Your task to perform on an android device: Do I have any events tomorrow? Image 0: 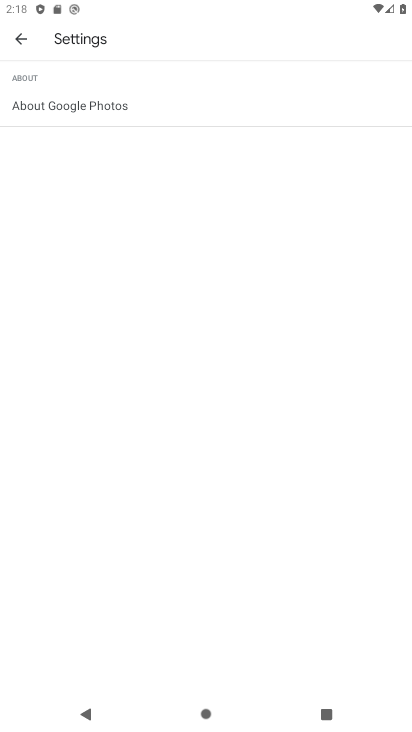
Step 0: press home button
Your task to perform on an android device: Do I have any events tomorrow? Image 1: 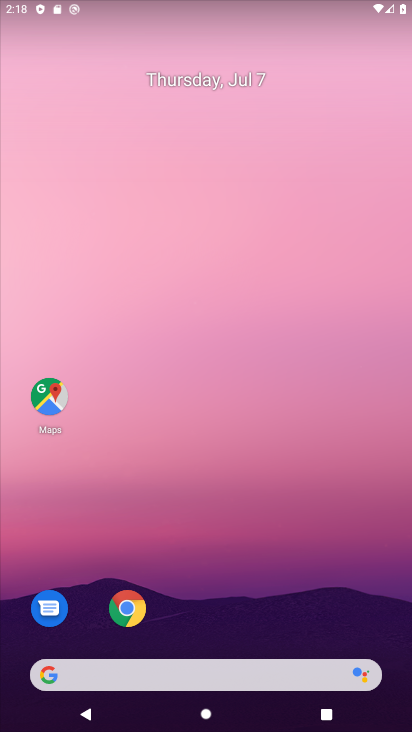
Step 1: drag from (391, 638) to (361, 163)
Your task to perform on an android device: Do I have any events tomorrow? Image 2: 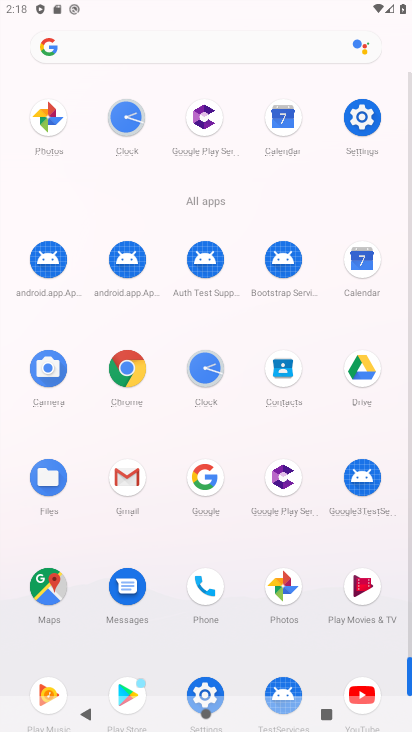
Step 2: click (409, 635)
Your task to perform on an android device: Do I have any events tomorrow? Image 3: 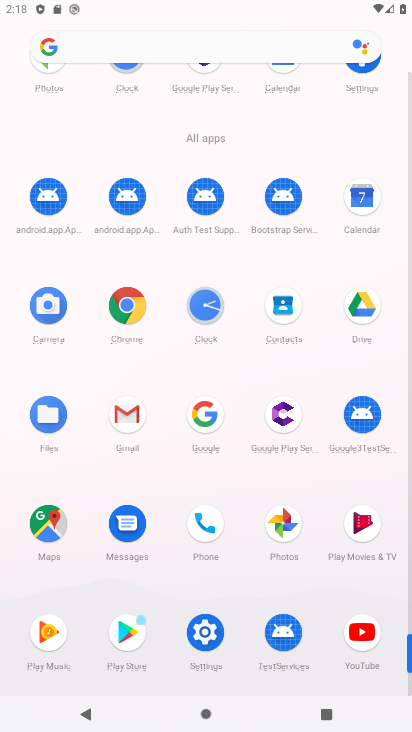
Step 3: click (362, 195)
Your task to perform on an android device: Do I have any events tomorrow? Image 4: 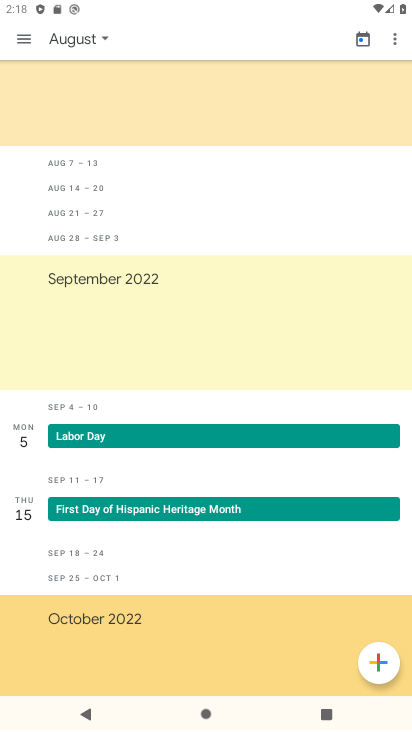
Step 4: click (24, 40)
Your task to perform on an android device: Do I have any events tomorrow? Image 5: 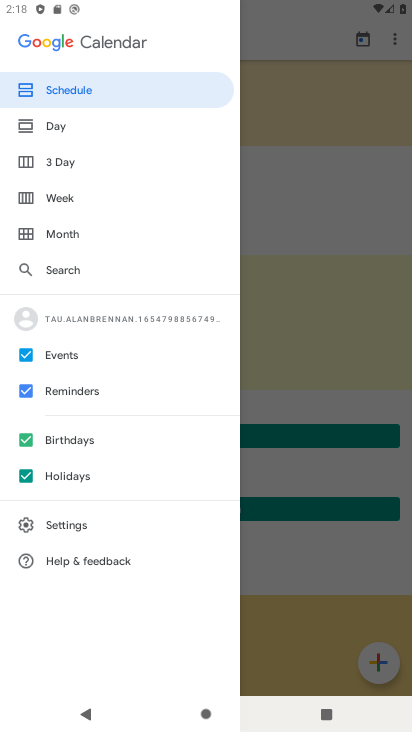
Step 5: click (57, 120)
Your task to perform on an android device: Do I have any events tomorrow? Image 6: 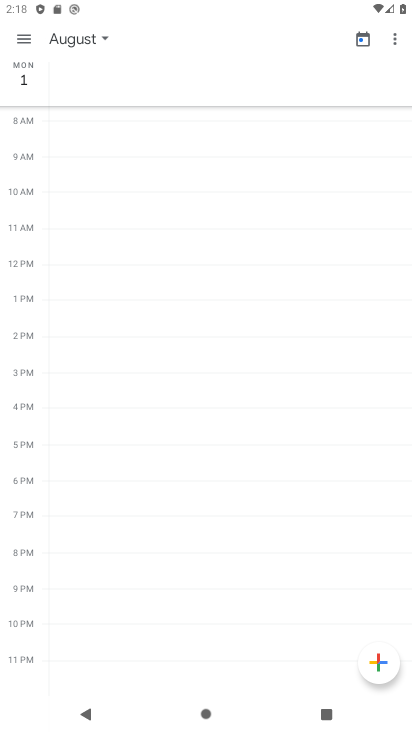
Step 6: click (100, 43)
Your task to perform on an android device: Do I have any events tomorrow? Image 7: 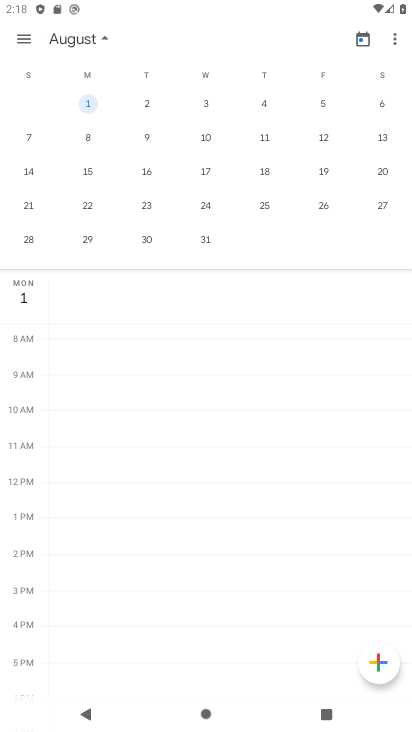
Step 7: drag from (25, 167) to (363, 156)
Your task to perform on an android device: Do I have any events tomorrow? Image 8: 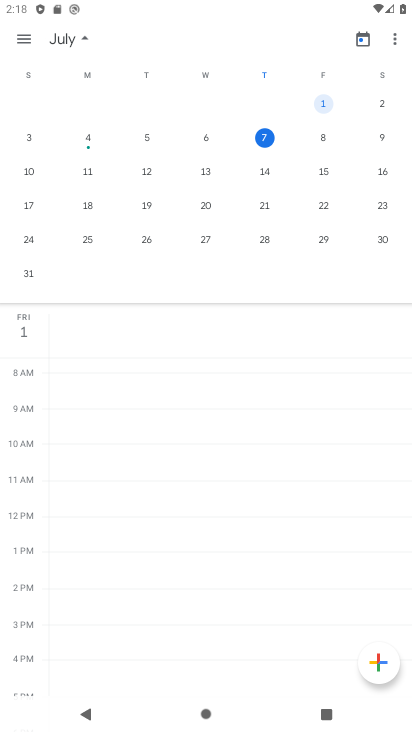
Step 8: click (323, 135)
Your task to perform on an android device: Do I have any events tomorrow? Image 9: 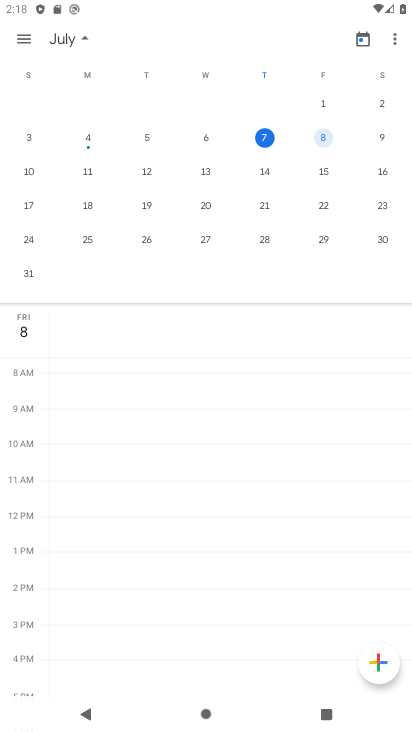
Step 9: task complete